Your task to perform on an android device: change the upload size in google photos Image 0: 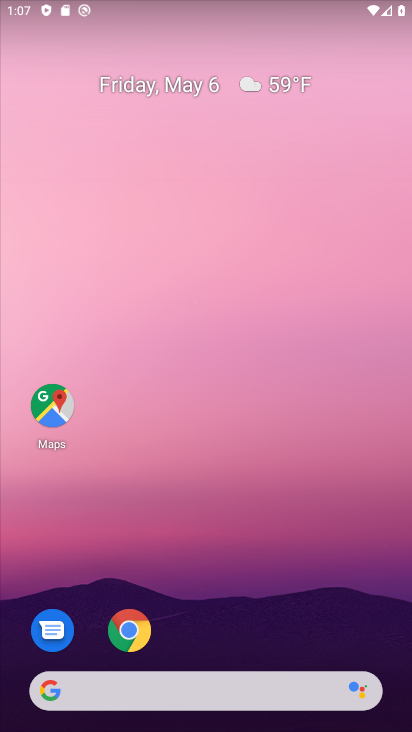
Step 0: drag from (190, 646) to (233, 287)
Your task to perform on an android device: change the upload size in google photos Image 1: 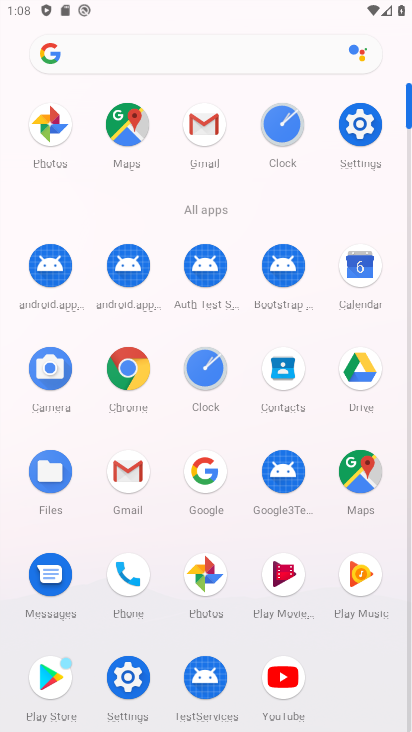
Step 1: click (199, 578)
Your task to perform on an android device: change the upload size in google photos Image 2: 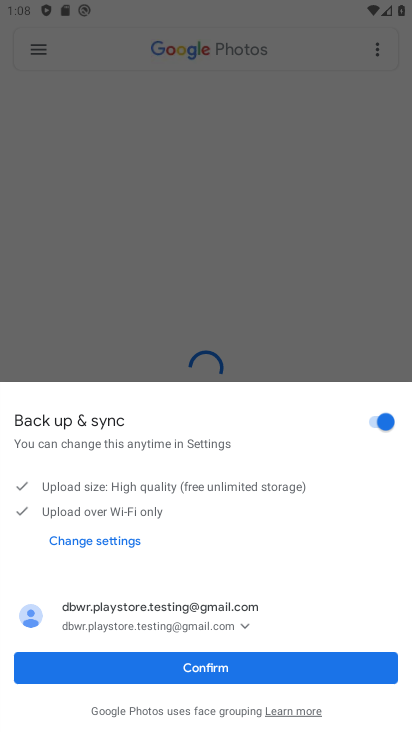
Step 2: click (216, 670)
Your task to perform on an android device: change the upload size in google photos Image 3: 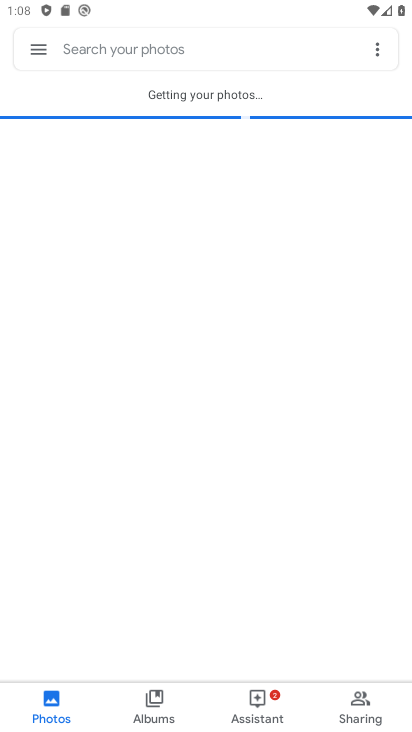
Step 3: click (40, 49)
Your task to perform on an android device: change the upload size in google photos Image 4: 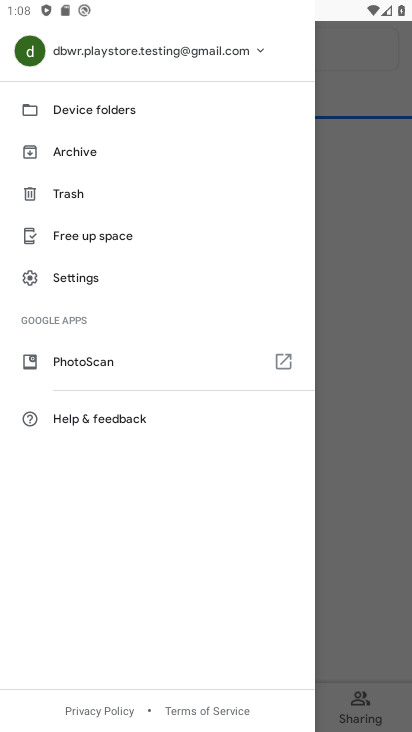
Step 4: click (82, 278)
Your task to perform on an android device: change the upload size in google photos Image 5: 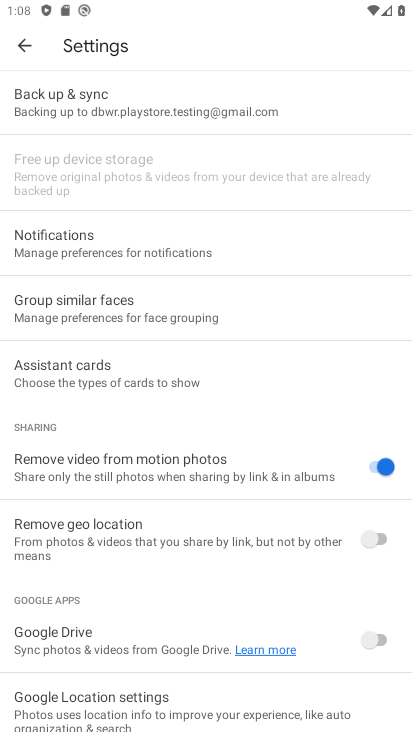
Step 5: click (109, 106)
Your task to perform on an android device: change the upload size in google photos Image 6: 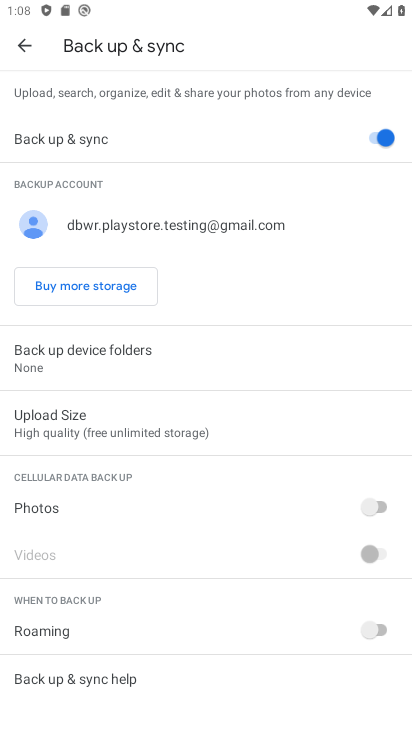
Step 6: click (121, 429)
Your task to perform on an android device: change the upload size in google photos Image 7: 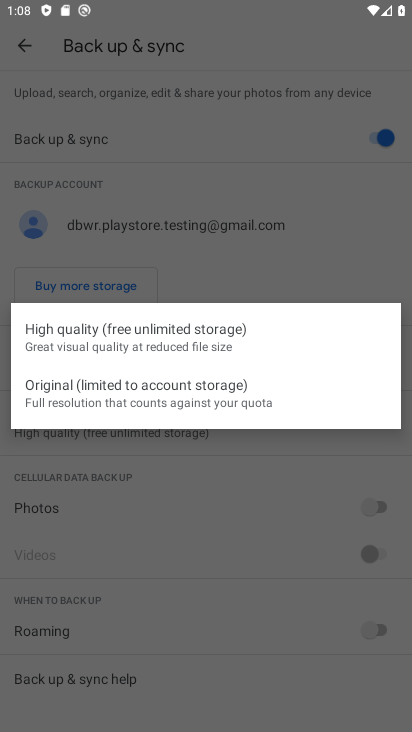
Step 7: click (125, 387)
Your task to perform on an android device: change the upload size in google photos Image 8: 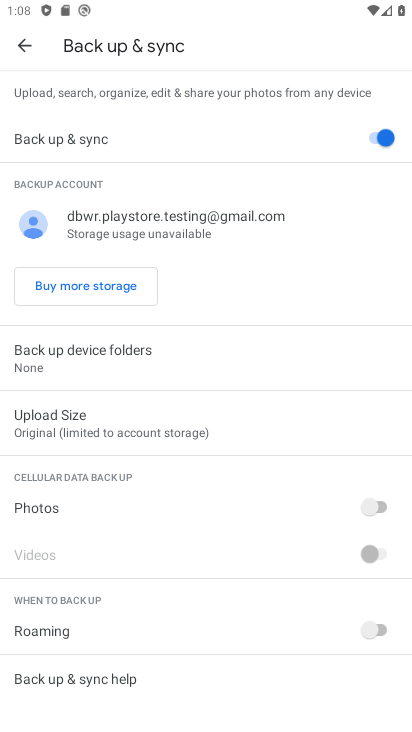
Step 8: task complete